Your task to perform on an android device: Open sound settings Image 0: 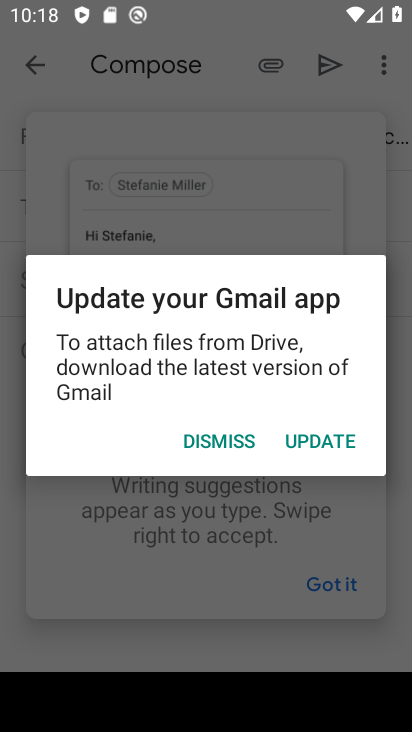
Step 0: press back button
Your task to perform on an android device: Open sound settings Image 1: 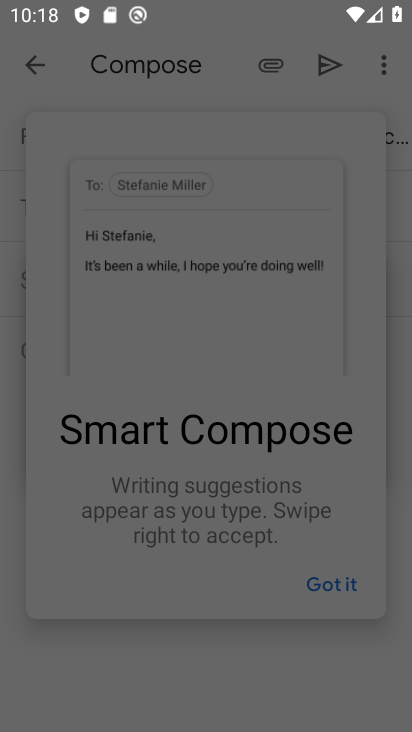
Step 1: press back button
Your task to perform on an android device: Open sound settings Image 2: 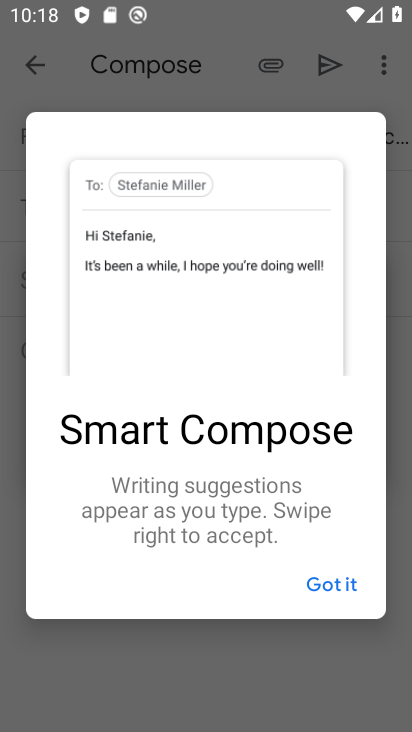
Step 2: press back button
Your task to perform on an android device: Open sound settings Image 3: 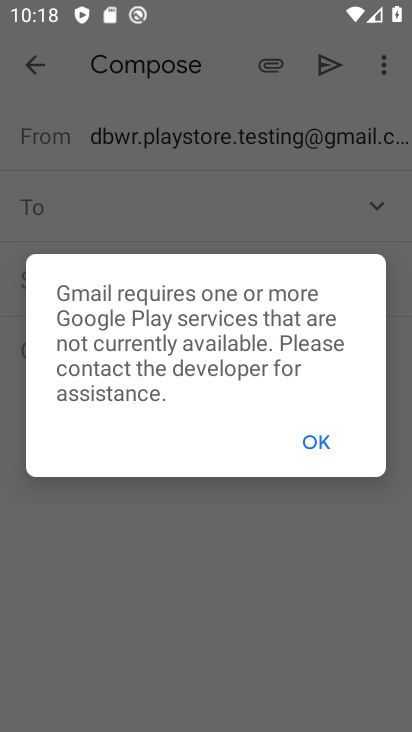
Step 3: press home button
Your task to perform on an android device: Open sound settings Image 4: 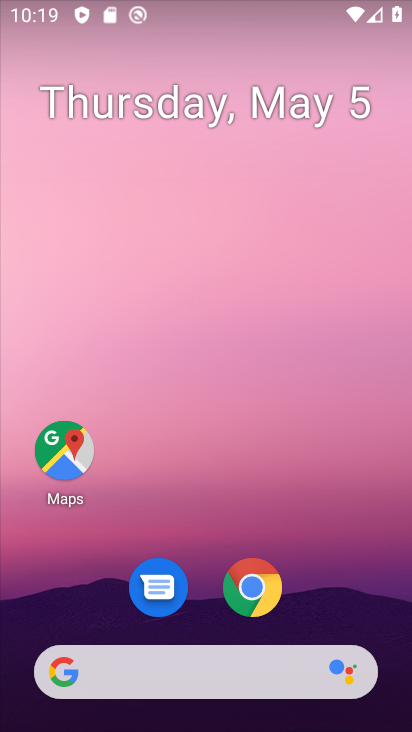
Step 4: drag from (319, 426) to (274, 11)
Your task to perform on an android device: Open sound settings Image 5: 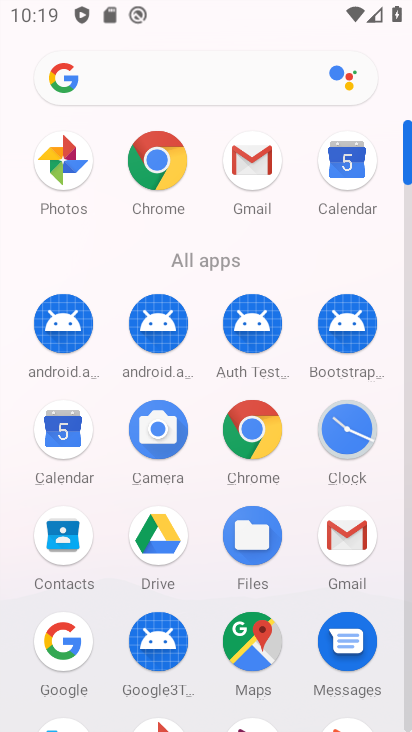
Step 5: drag from (12, 531) to (16, 141)
Your task to perform on an android device: Open sound settings Image 6: 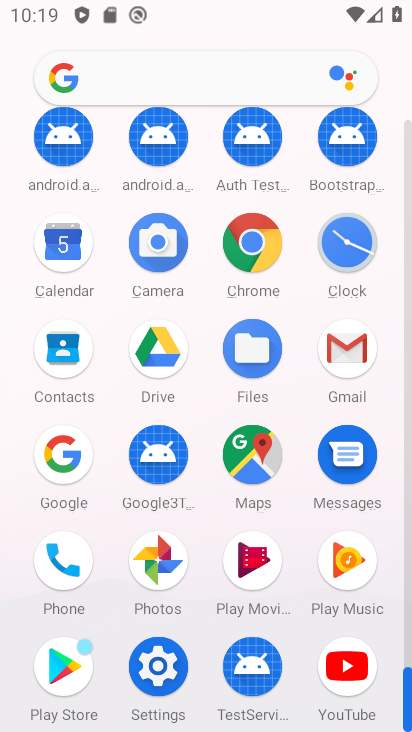
Step 6: click (158, 665)
Your task to perform on an android device: Open sound settings Image 7: 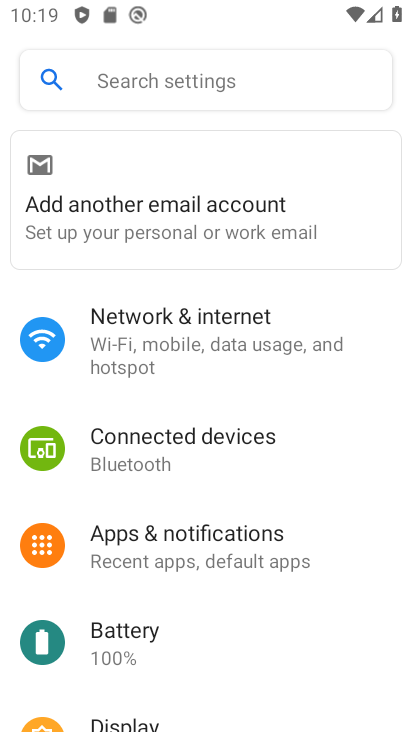
Step 7: drag from (350, 546) to (377, 193)
Your task to perform on an android device: Open sound settings Image 8: 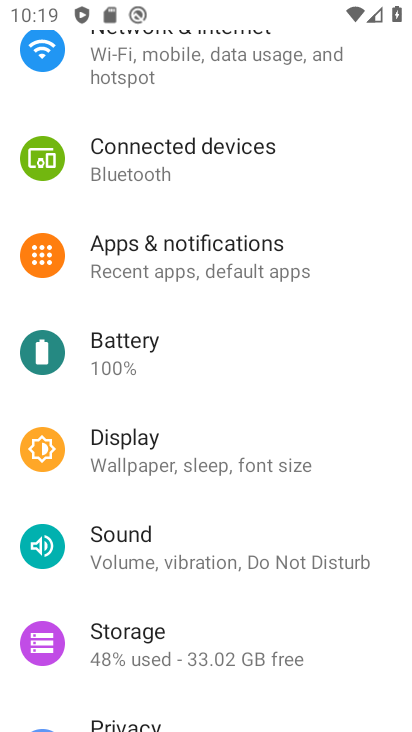
Step 8: click (177, 555)
Your task to perform on an android device: Open sound settings Image 9: 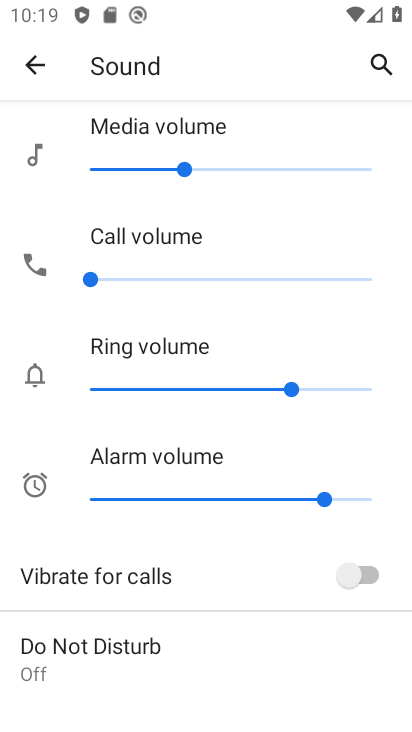
Step 9: drag from (223, 542) to (231, 125)
Your task to perform on an android device: Open sound settings Image 10: 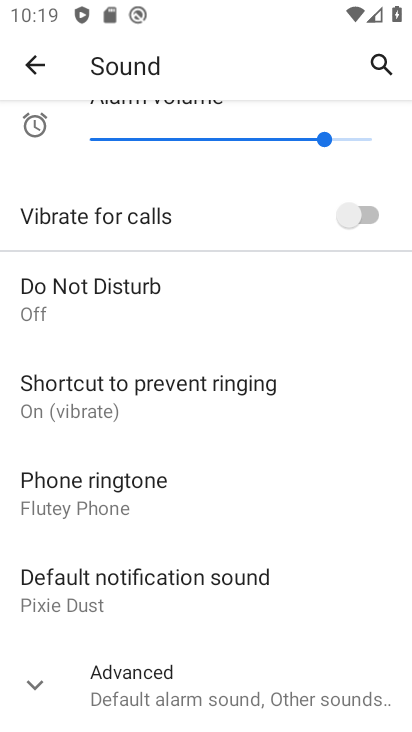
Step 10: drag from (194, 460) to (229, 124)
Your task to perform on an android device: Open sound settings Image 11: 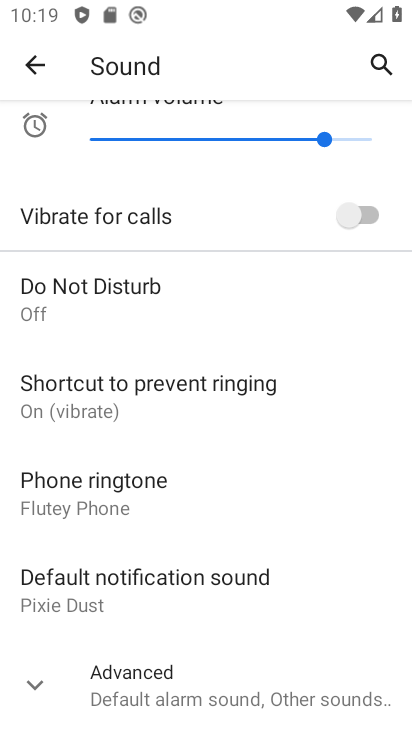
Step 11: click (29, 678)
Your task to perform on an android device: Open sound settings Image 12: 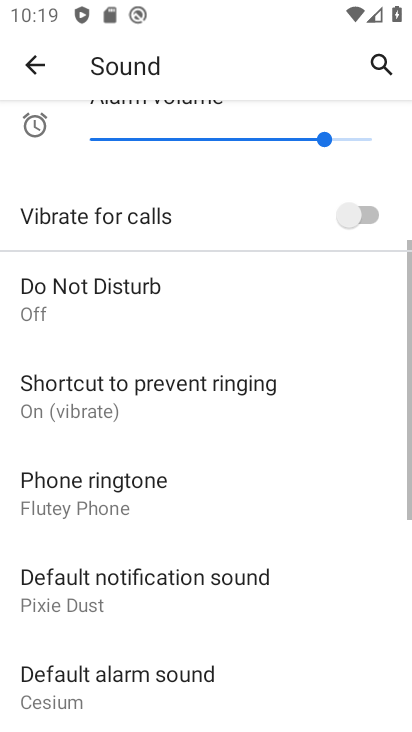
Step 12: task complete